Your task to perform on an android device: Set the phone to "Do not disturb". Image 0: 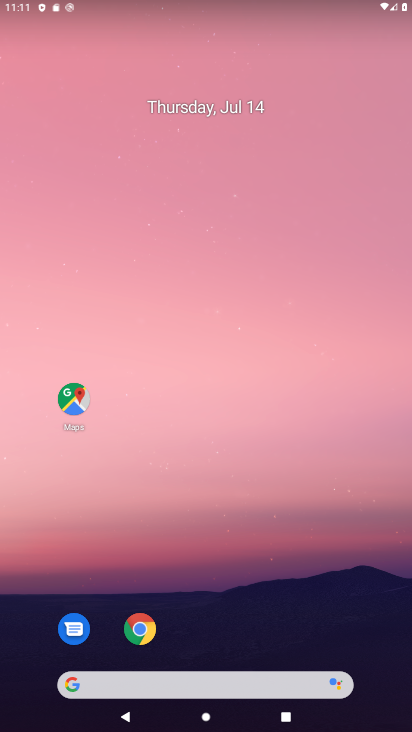
Step 0: drag from (142, 645) to (93, 286)
Your task to perform on an android device: Set the phone to "Do not disturb". Image 1: 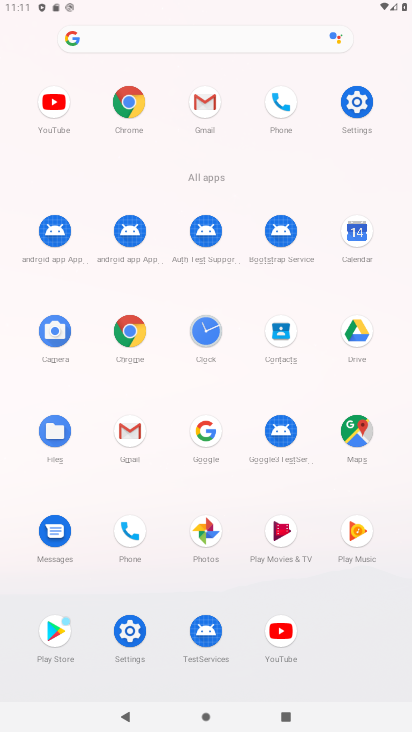
Step 1: drag from (246, 8) to (234, 505)
Your task to perform on an android device: Set the phone to "Do not disturb". Image 2: 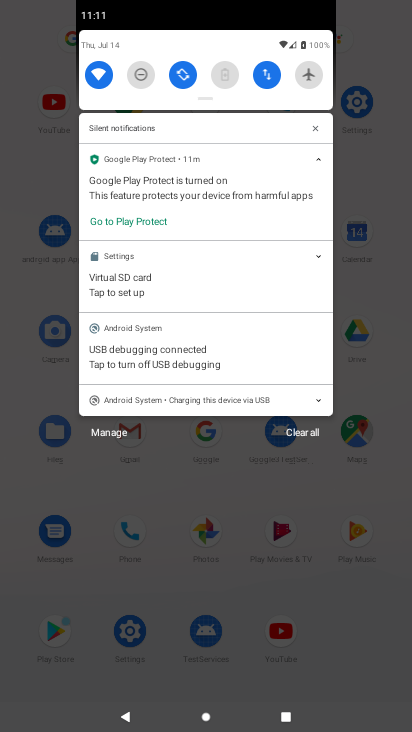
Step 2: drag from (153, 99) to (177, 506)
Your task to perform on an android device: Set the phone to "Do not disturb". Image 3: 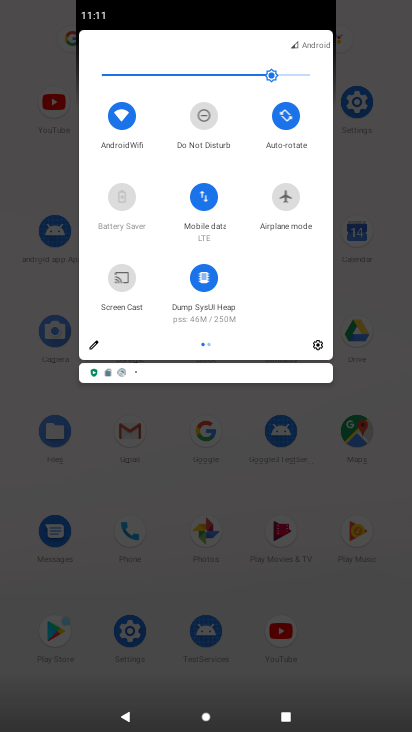
Step 3: click (193, 119)
Your task to perform on an android device: Set the phone to "Do not disturb". Image 4: 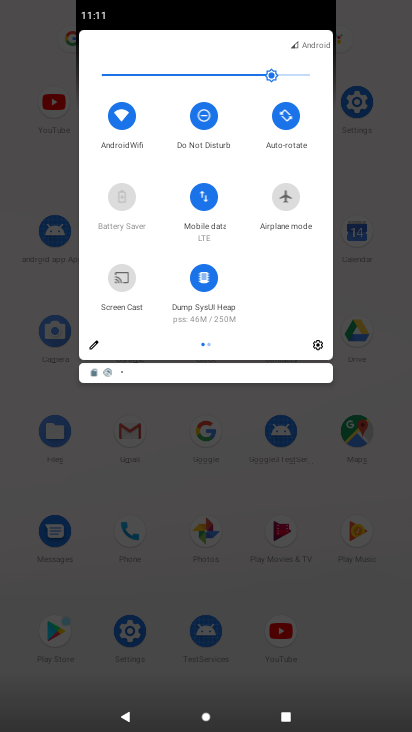
Step 4: task complete